Your task to perform on an android device: Go to Yahoo.com Image 0: 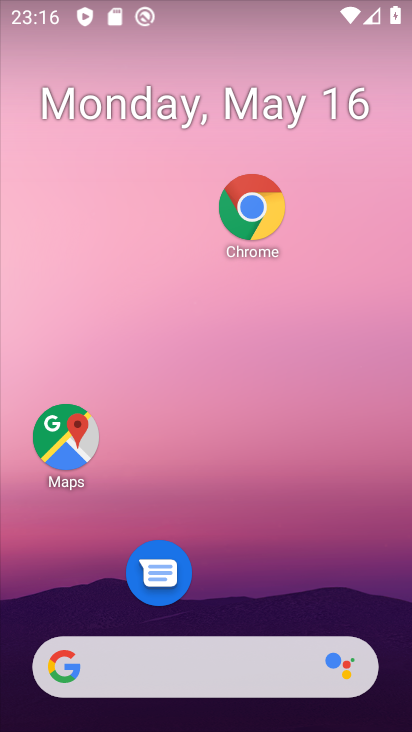
Step 0: drag from (298, 654) to (322, 71)
Your task to perform on an android device: Go to Yahoo.com Image 1: 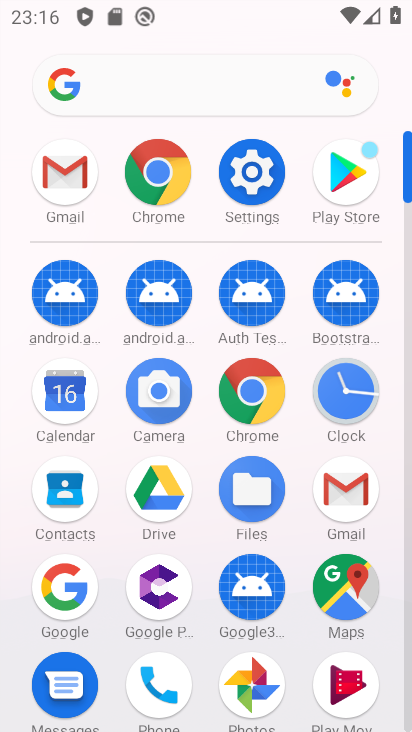
Step 1: click (258, 397)
Your task to perform on an android device: Go to Yahoo.com Image 2: 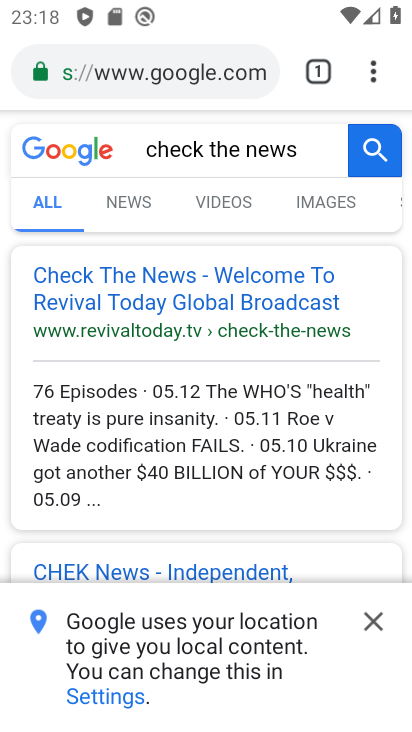
Step 2: click (176, 74)
Your task to perform on an android device: Go to Yahoo.com Image 3: 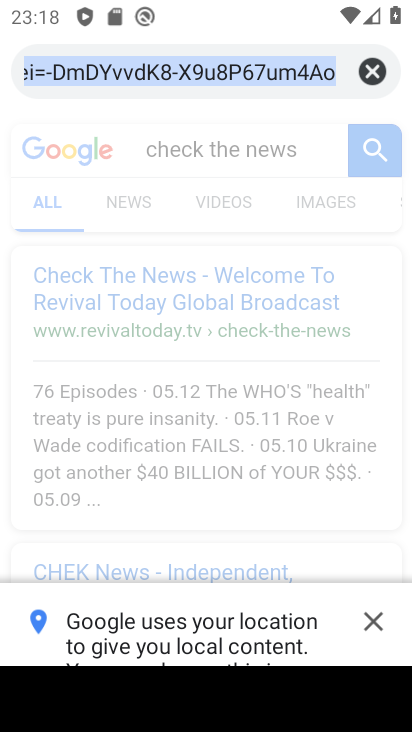
Step 3: click (377, 67)
Your task to perform on an android device: Go to Yahoo.com Image 4: 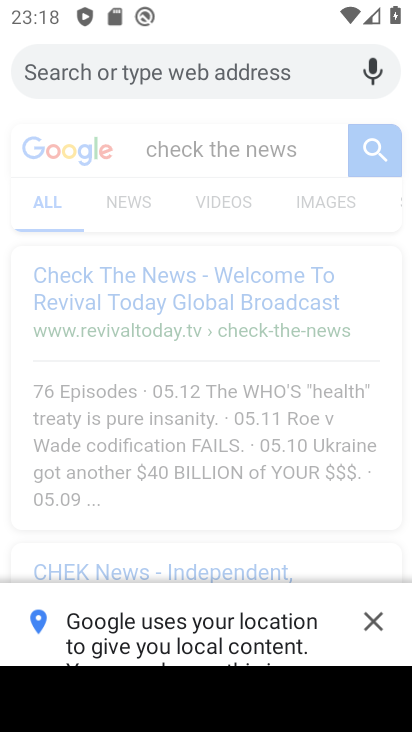
Step 4: type "yahoo.com"
Your task to perform on an android device: Go to Yahoo.com Image 5: 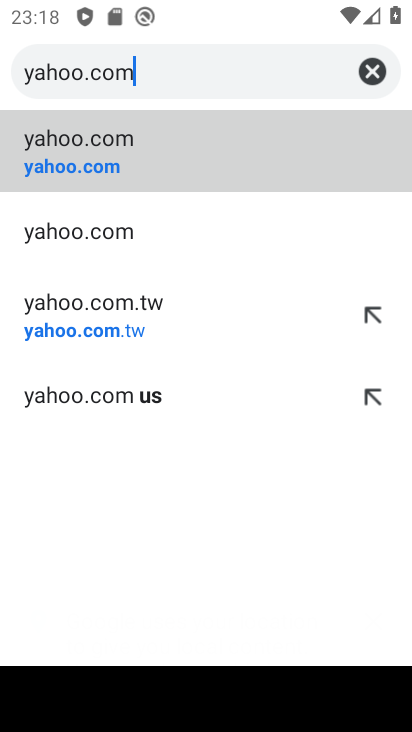
Step 5: click (166, 138)
Your task to perform on an android device: Go to Yahoo.com Image 6: 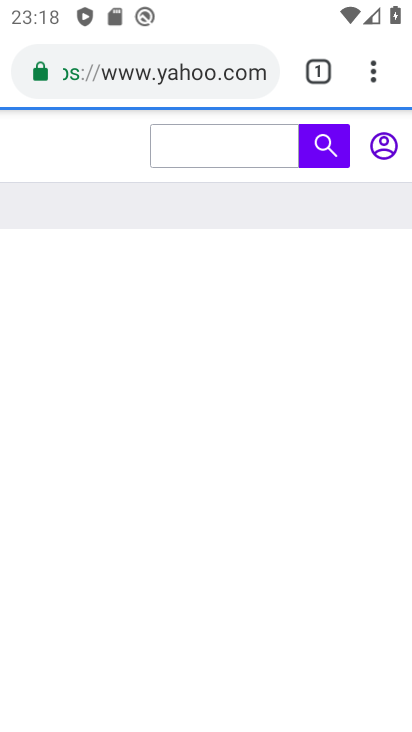
Step 6: task complete